Your task to perform on an android device: View the shopping cart on costco.com. Search for apple airpods on costco.com, select the first entry, and add it to the cart. Image 0: 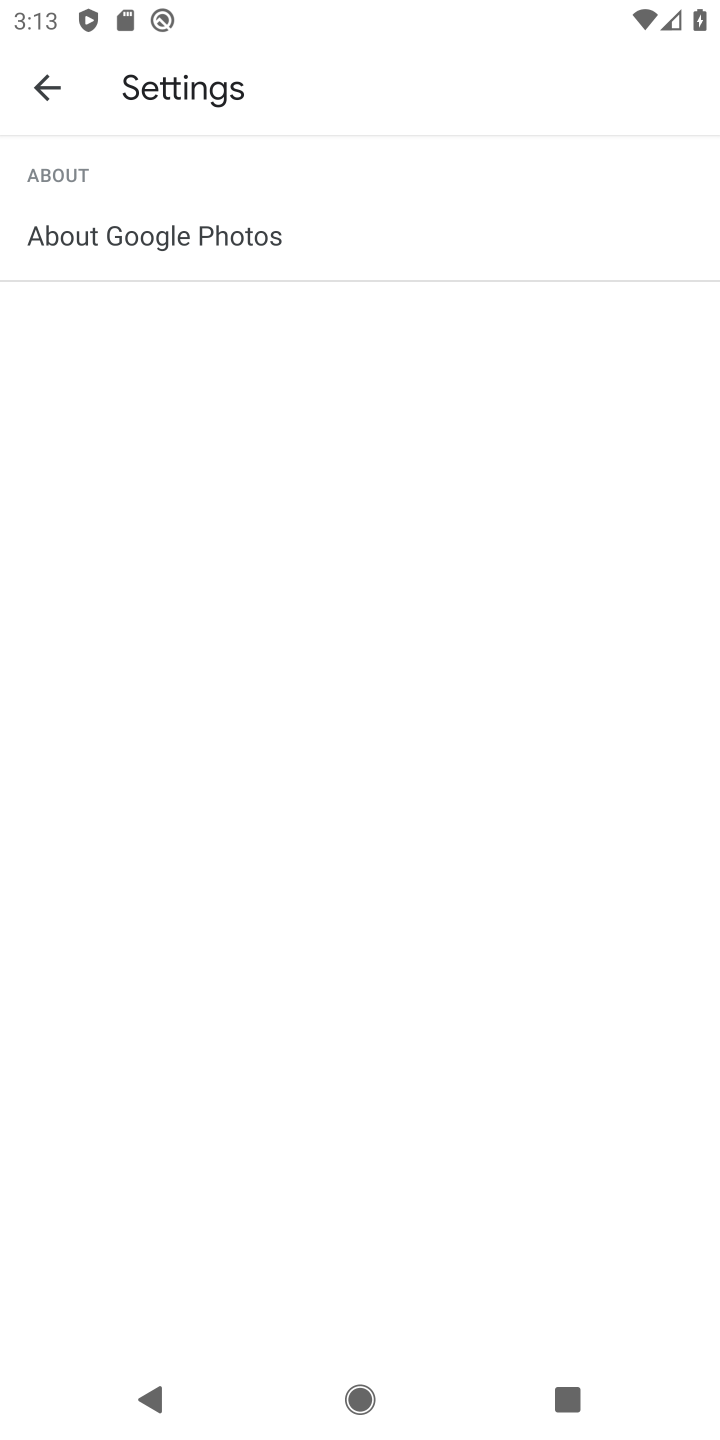
Step 0: press home button
Your task to perform on an android device: View the shopping cart on costco.com. Search for apple airpods on costco.com, select the first entry, and add it to the cart. Image 1: 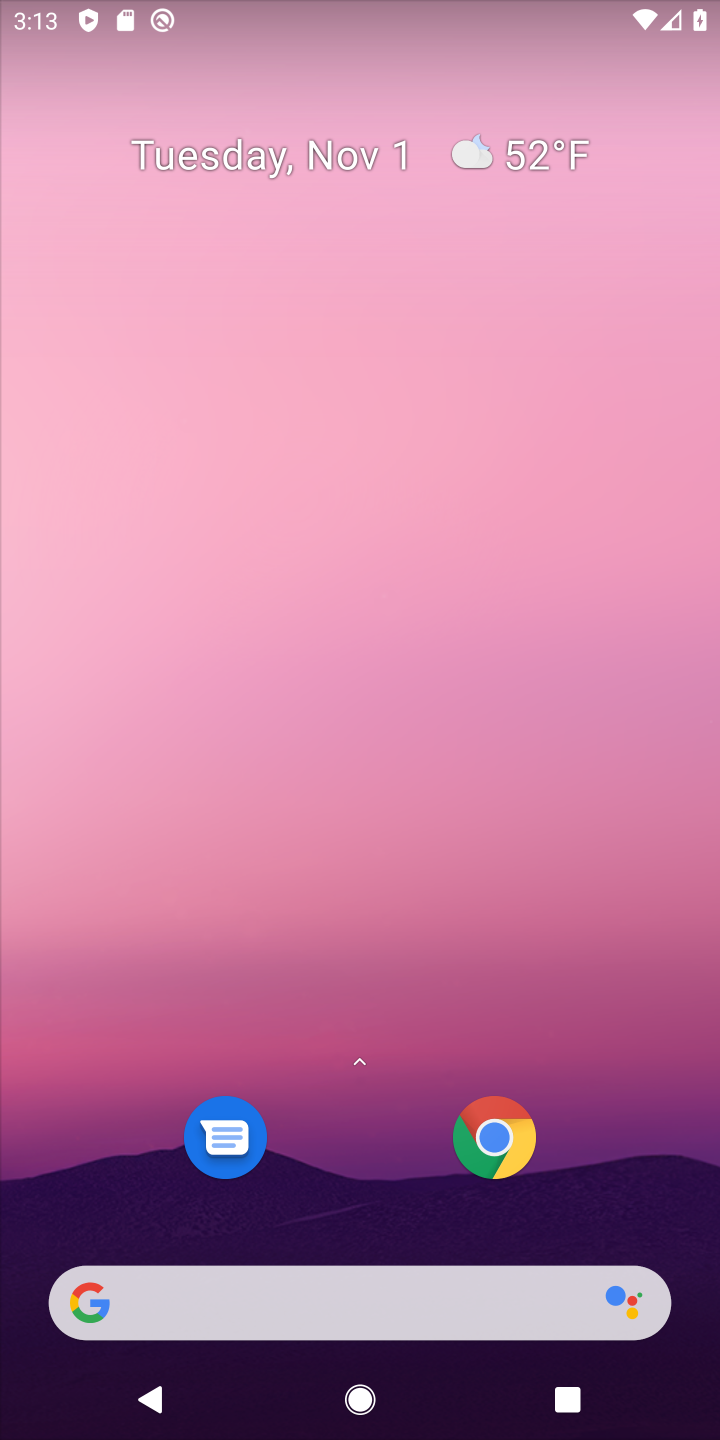
Step 1: click (324, 1273)
Your task to perform on an android device: View the shopping cart on costco.com. Search for apple airpods on costco.com, select the first entry, and add it to the cart. Image 2: 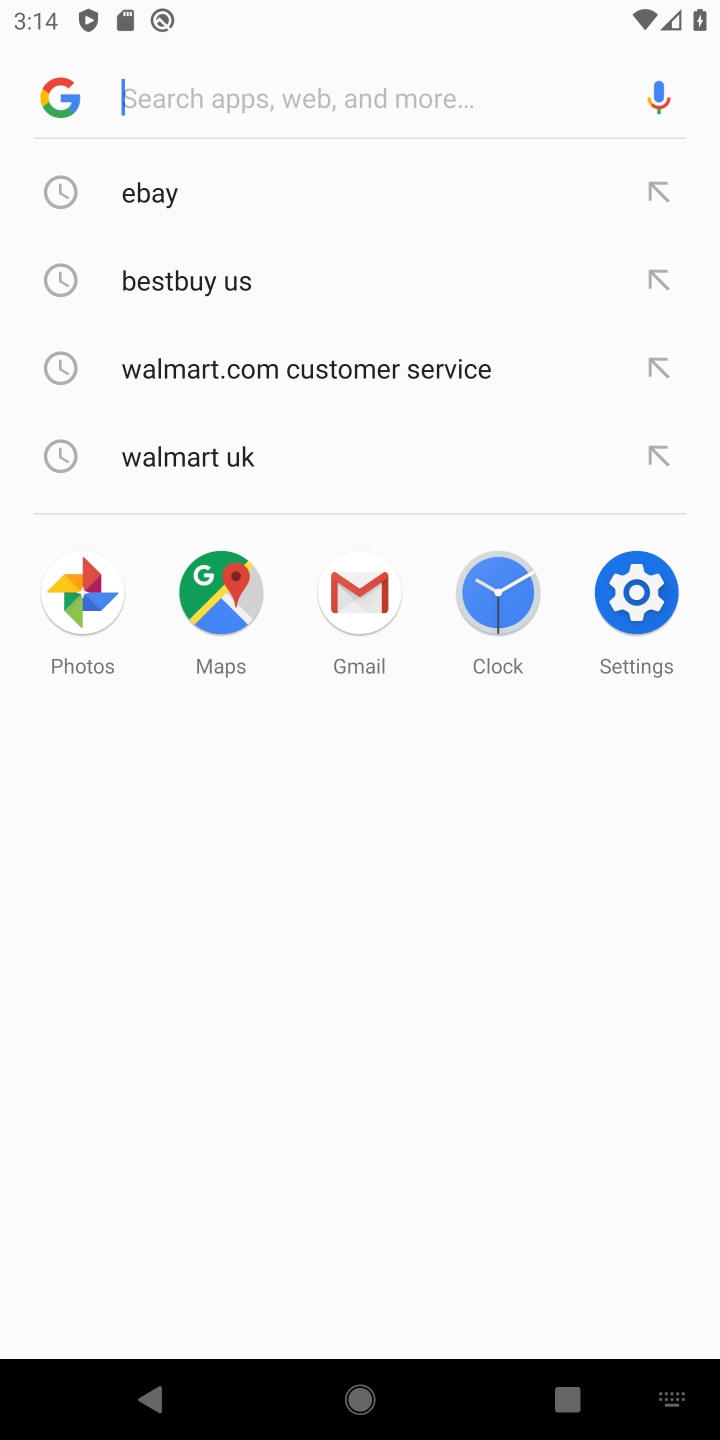
Step 2: type "ostco"
Your task to perform on an android device: View the shopping cart on costco.com. Search for apple airpods on costco.com, select the first entry, and add it to the cart. Image 3: 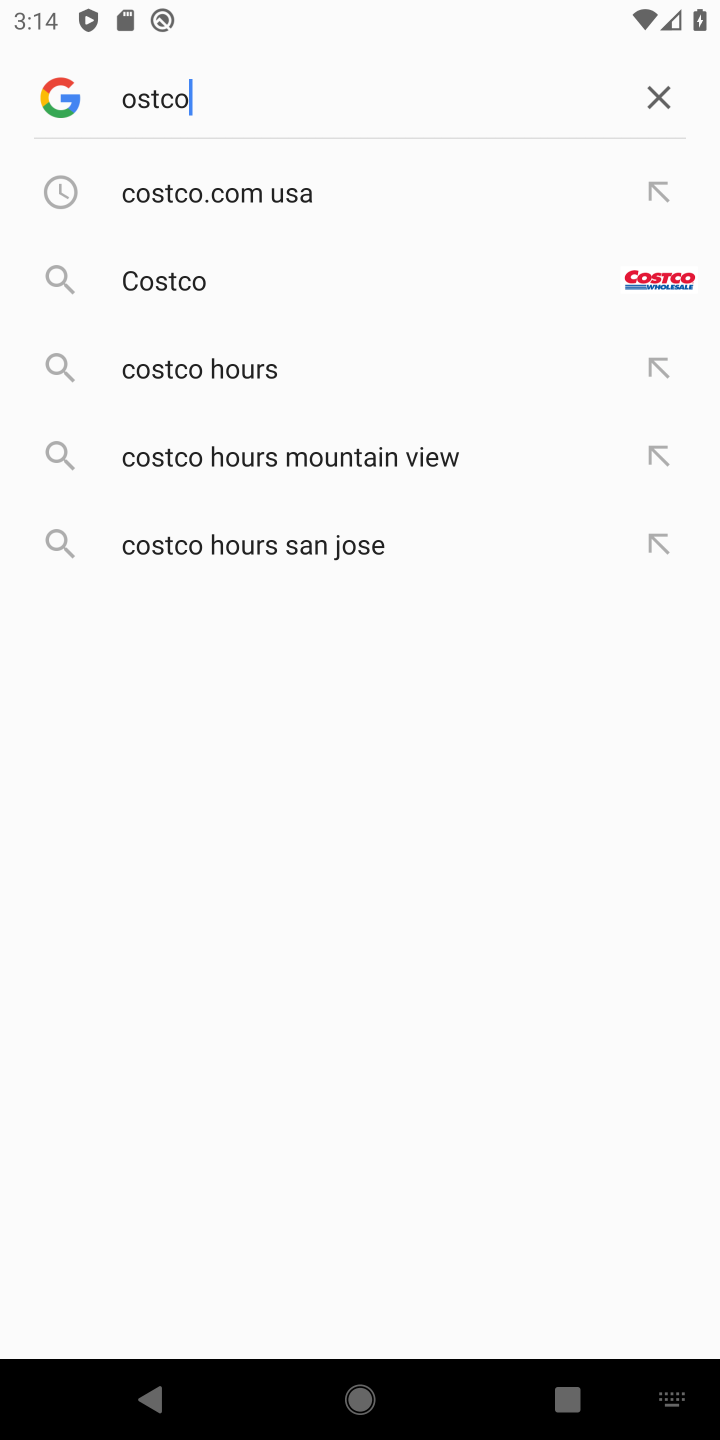
Step 3: click (239, 215)
Your task to perform on an android device: View the shopping cart on costco.com. Search for apple airpods on costco.com, select the first entry, and add it to the cart. Image 4: 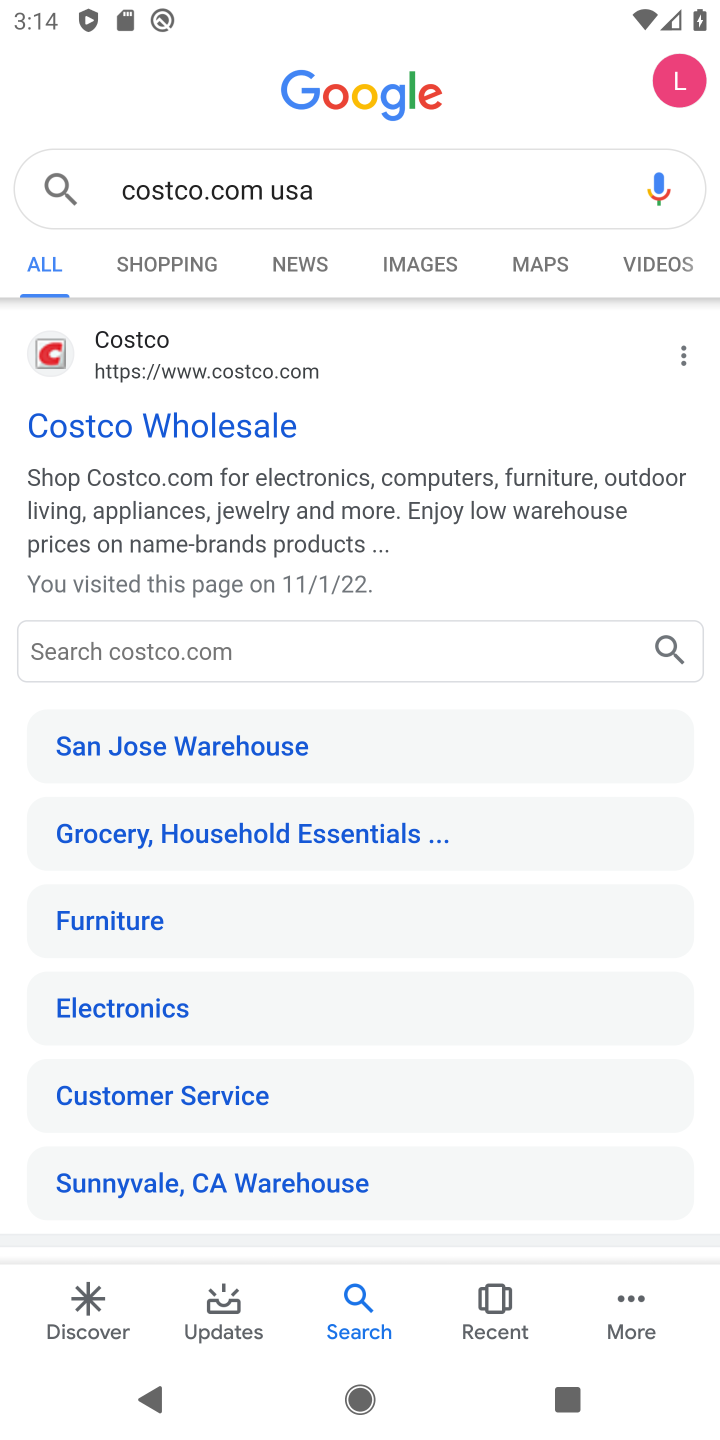
Step 4: click (171, 405)
Your task to perform on an android device: View the shopping cart on costco.com. Search for apple airpods on costco.com, select the first entry, and add it to the cart. Image 5: 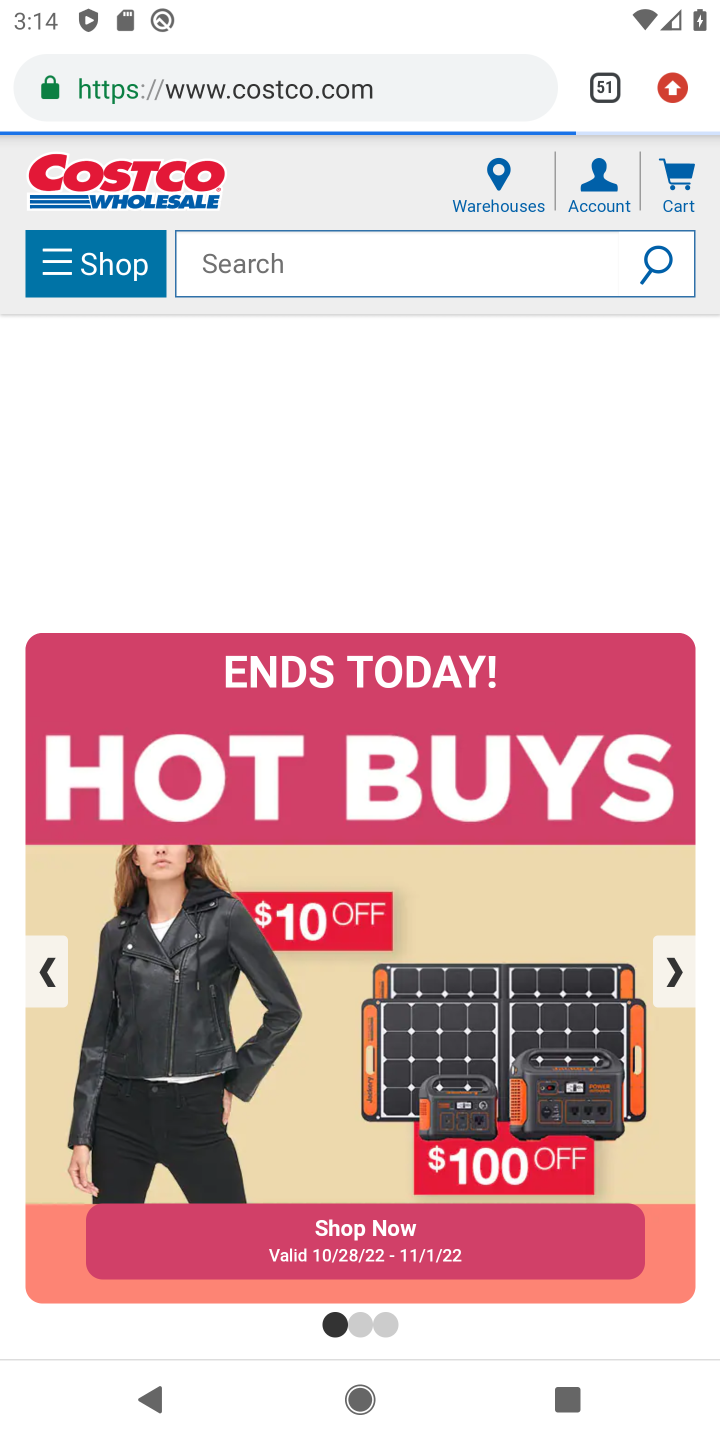
Step 5: click (334, 261)
Your task to perform on an android device: View the shopping cart on costco.com. Search for apple airpods on costco.com, select the first entry, and add it to the cart. Image 6: 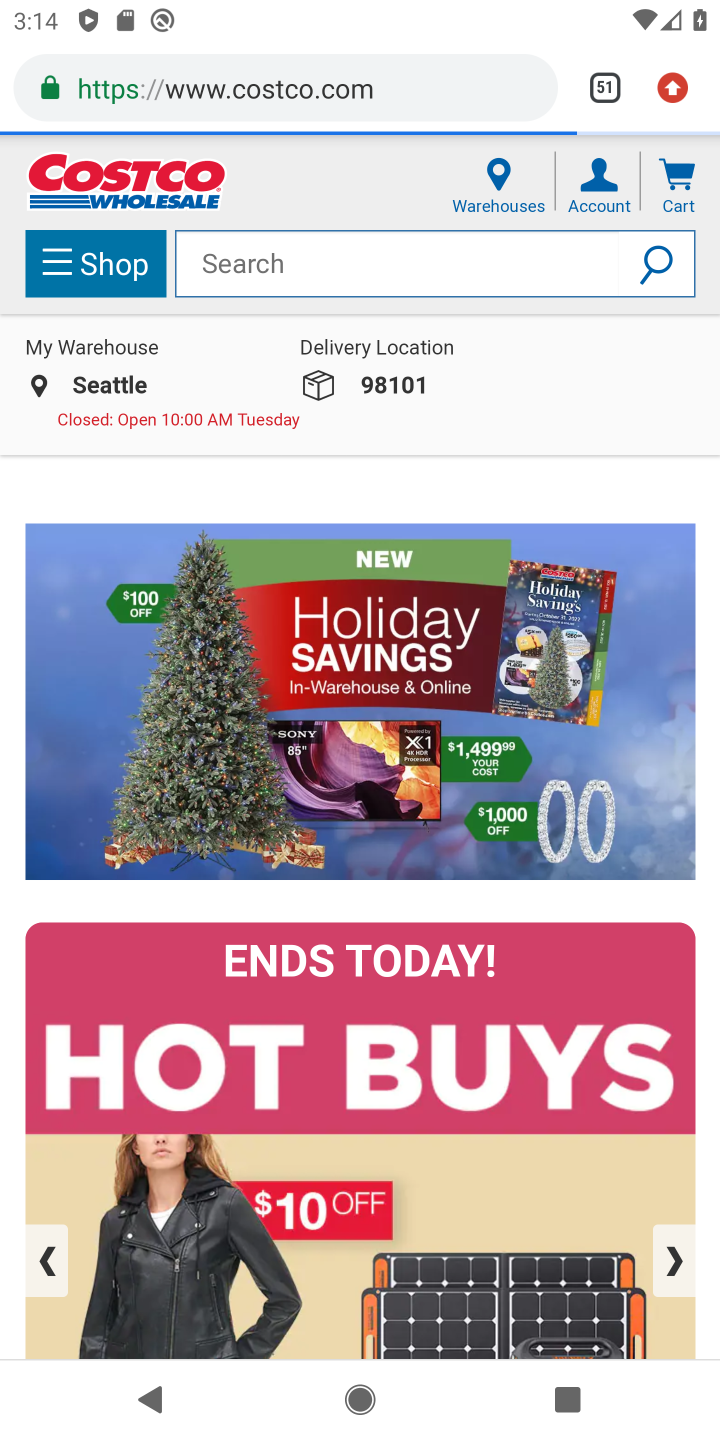
Step 6: type "aplle airpod"
Your task to perform on an android device: View the shopping cart on costco.com. Search for apple airpods on costco.com, select the first entry, and add it to the cart. Image 7: 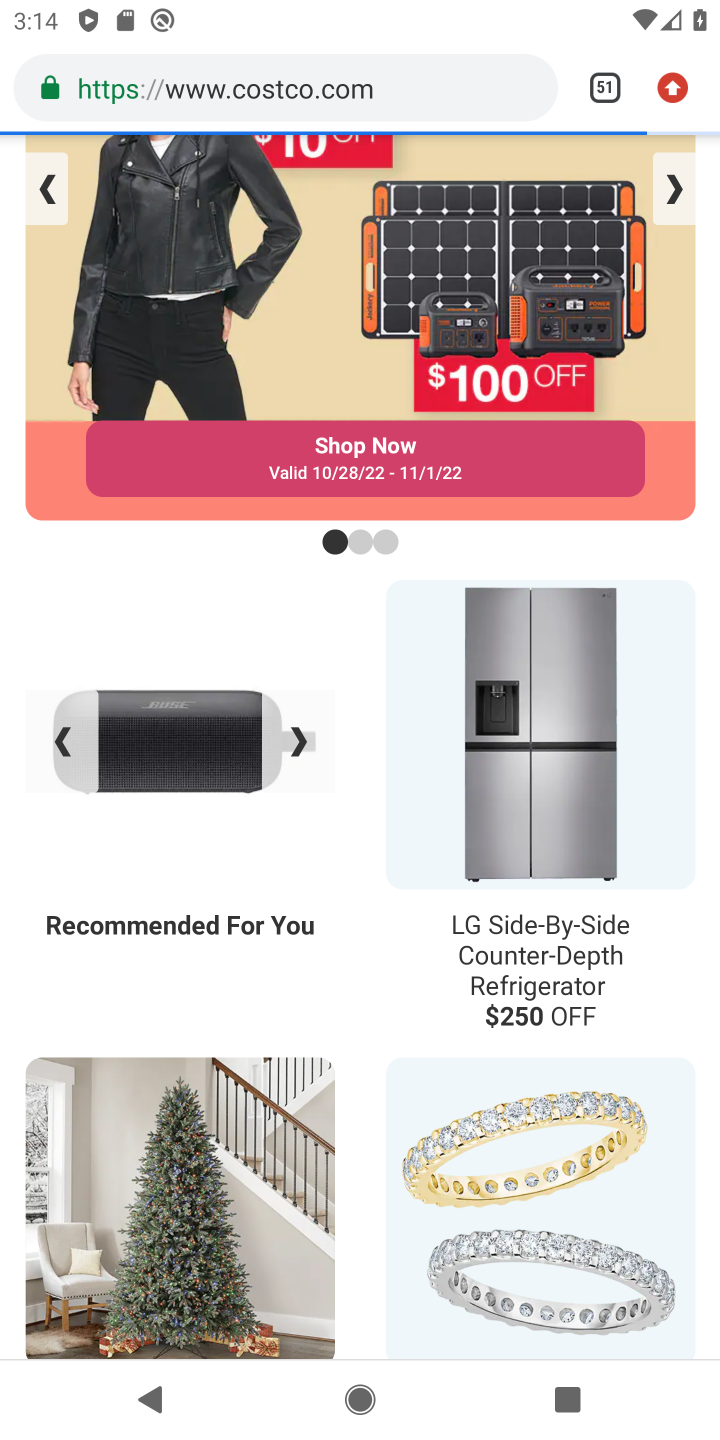
Step 7: task complete